Your task to perform on an android device: check out phone information Image 0: 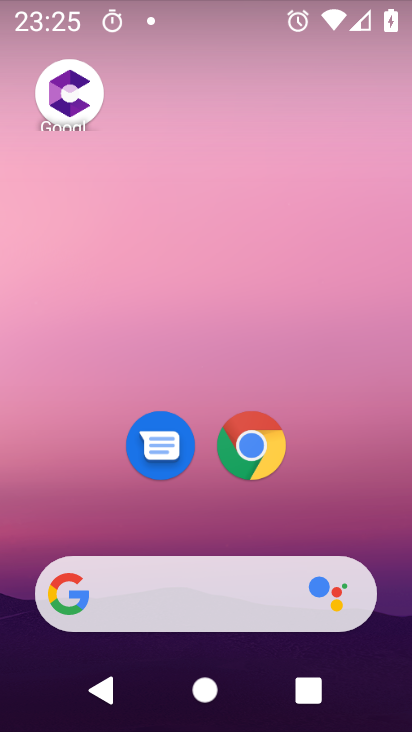
Step 0: drag from (158, 603) to (107, 24)
Your task to perform on an android device: check out phone information Image 1: 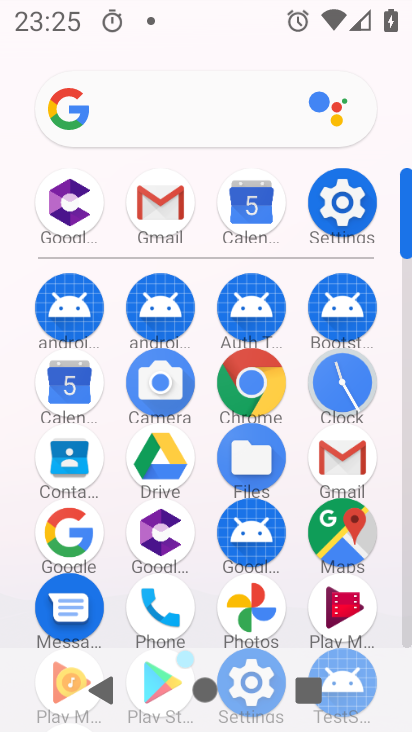
Step 1: click (338, 202)
Your task to perform on an android device: check out phone information Image 2: 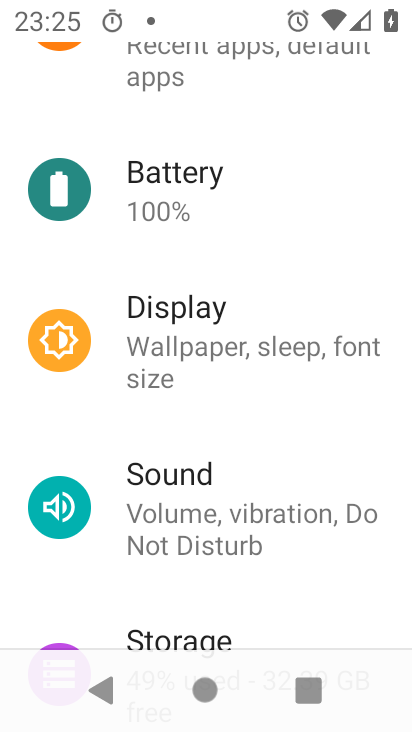
Step 2: drag from (252, 587) to (220, 136)
Your task to perform on an android device: check out phone information Image 3: 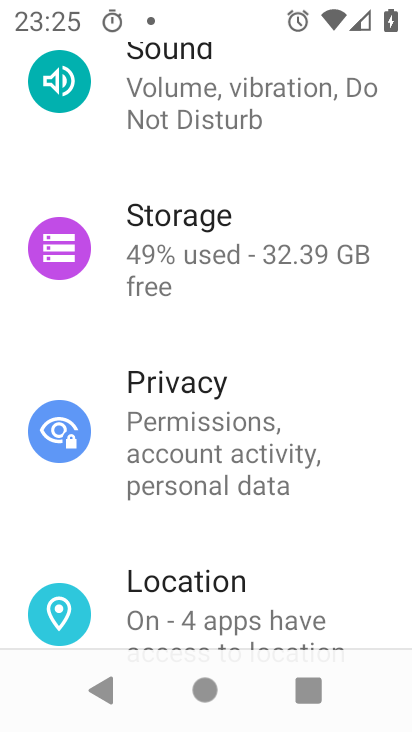
Step 3: drag from (269, 543) to (175, 27)
Your task to perform on an android device: check out phone information Image 4: 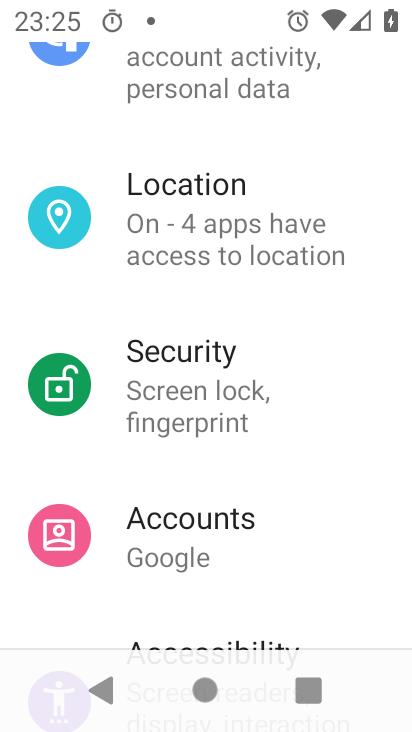
Step 4: drag from (250, 589) to (230, 100)
Your task to perform on an android device: check out phone information Image 5: 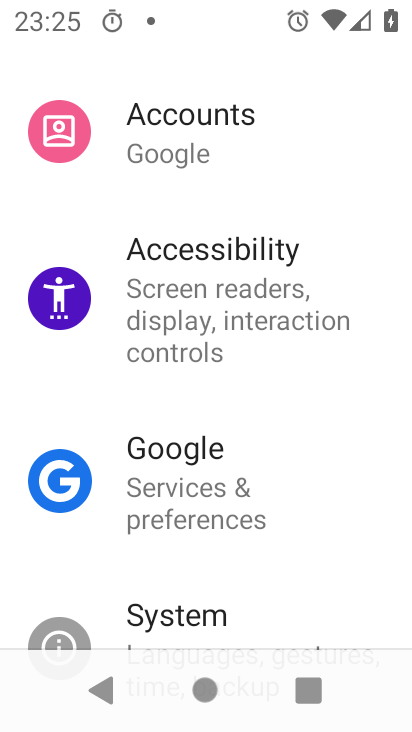
Step 5: drag from (240, 603) to (224, 114)
Your task to perform on an android device: check out phone information Image 6: 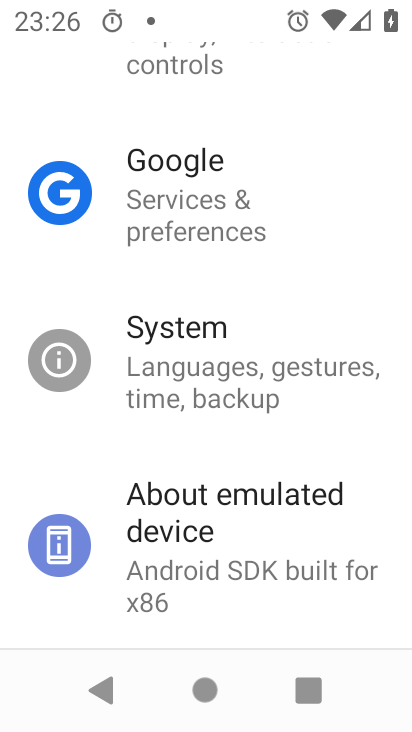
Step 6: click (272, 591)
Your task to perform on an android device: check out phone information Image 7: 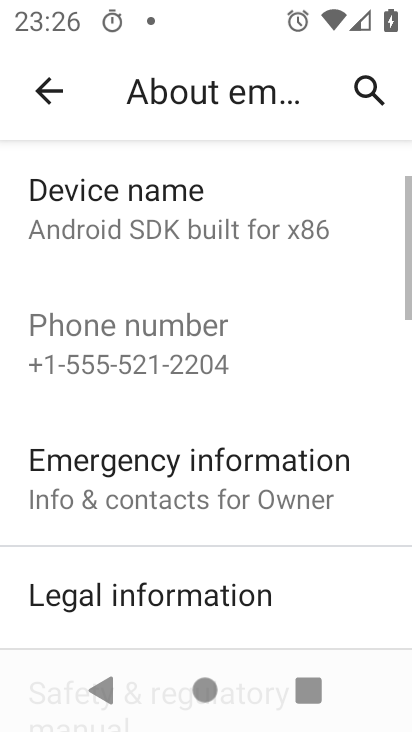
Step 7: task complete